Your task to perform on an android device: refresh tabs in the chrome app Image 0: 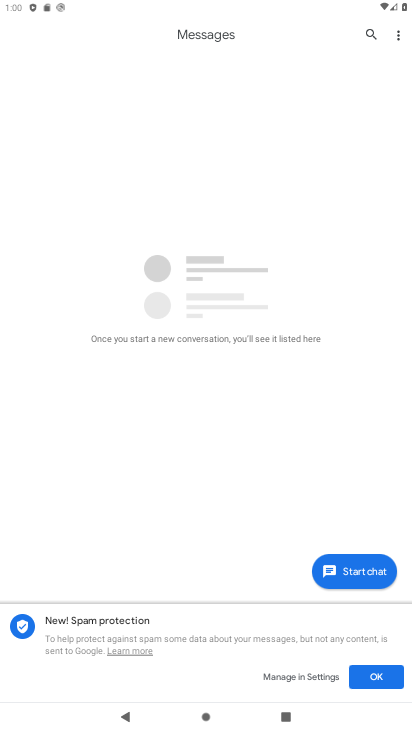
Step 0: press home button
Your task to perform on an android device: refresh tabs in the chrome app Image 1: 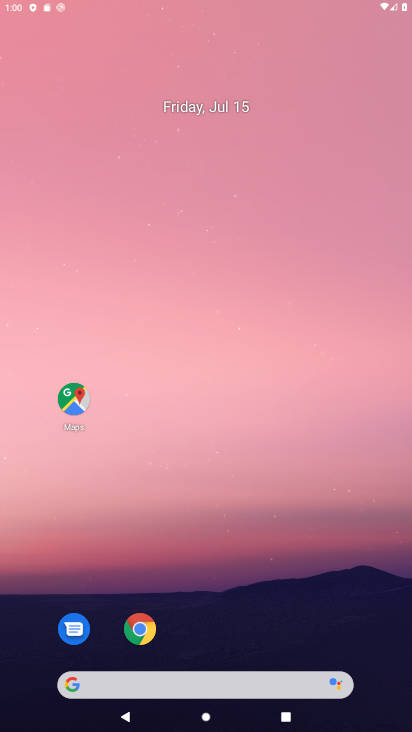
Step 1: drag from (233, 637) to (235, 229)
Your task to perform on an android device: refresh tabs in the chrome app Image 2: 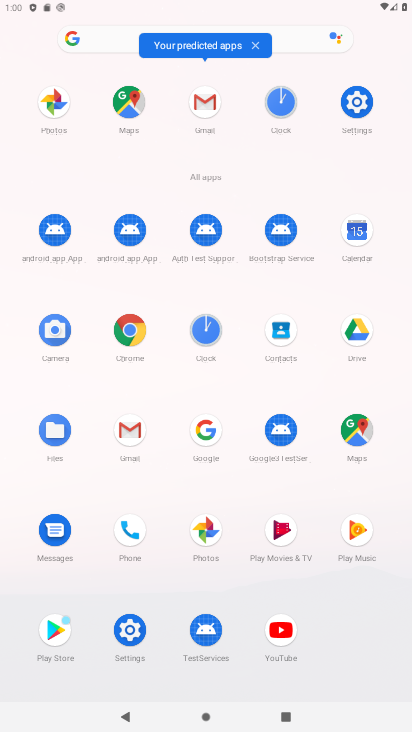
Step 2: click (126, 314)
Your task to perform on an android device: refresh tabs in the chrome app Image 3: 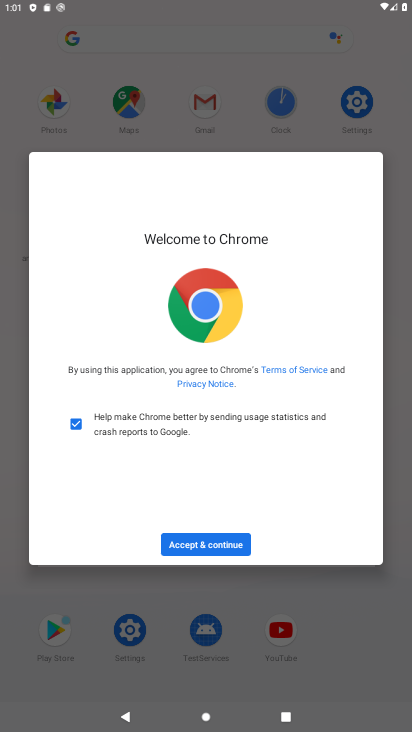
Step 3: click (236, 543)
Your task to perform on an android device: refresh tabs in the chrome app Image 4: 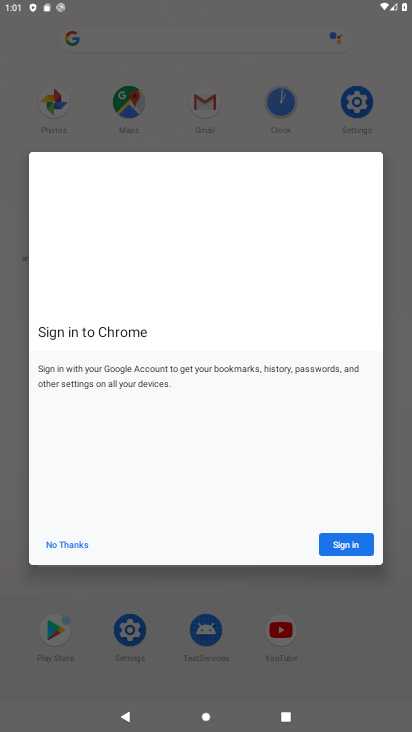
Step 4: click (61, 541)
Your task to perform on an android device: refresh tabs in the chrome app Image 5: 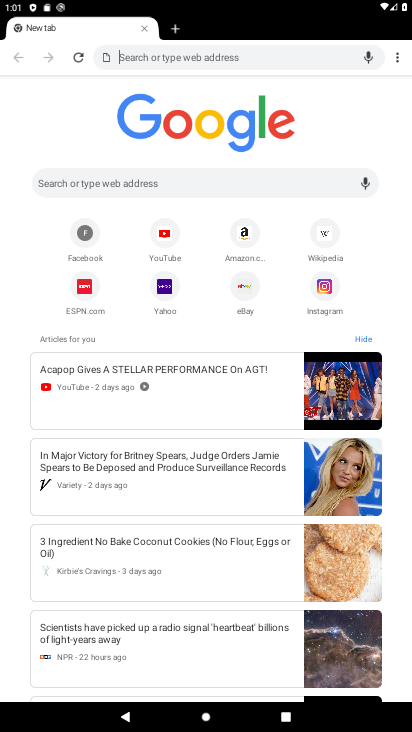
Step 5: click (81, 52)
Your task to perform on an android device: refresh tabs in the chrome app Image 6: 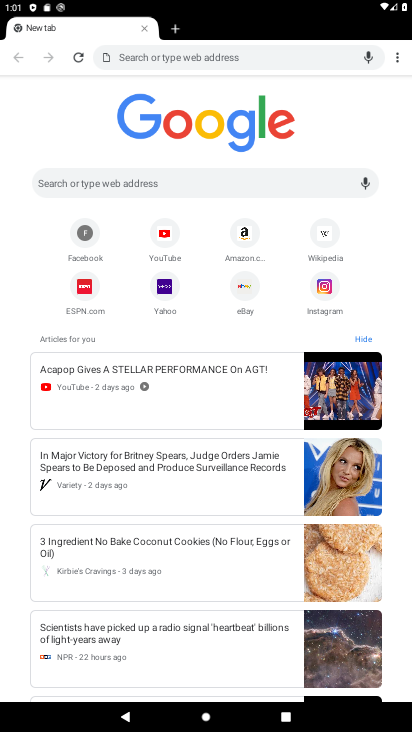
Step 6: task complete